Your task to perform on an android device: Open internet settings Image 0: 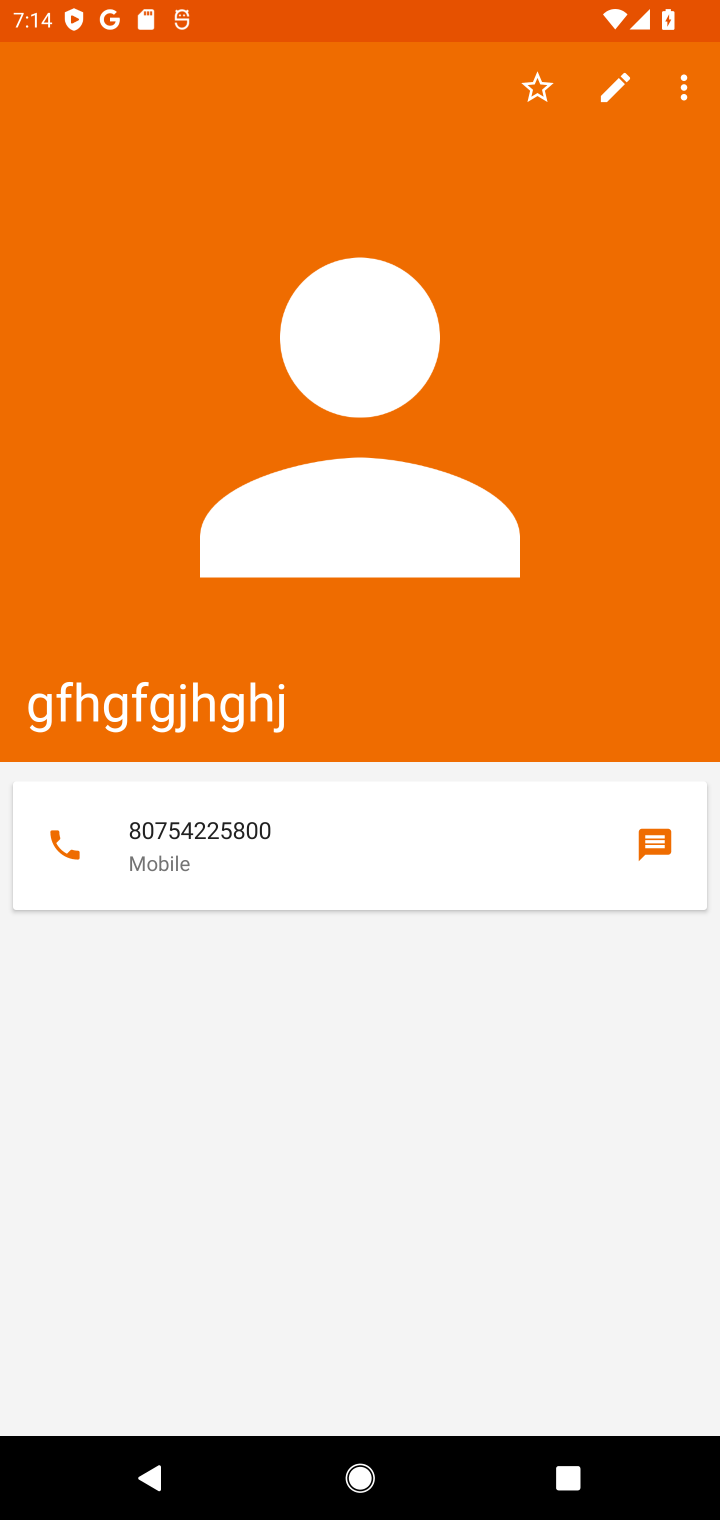
Step 0: press home button
Your task to perform on an android device: Open internet settings Image 1: 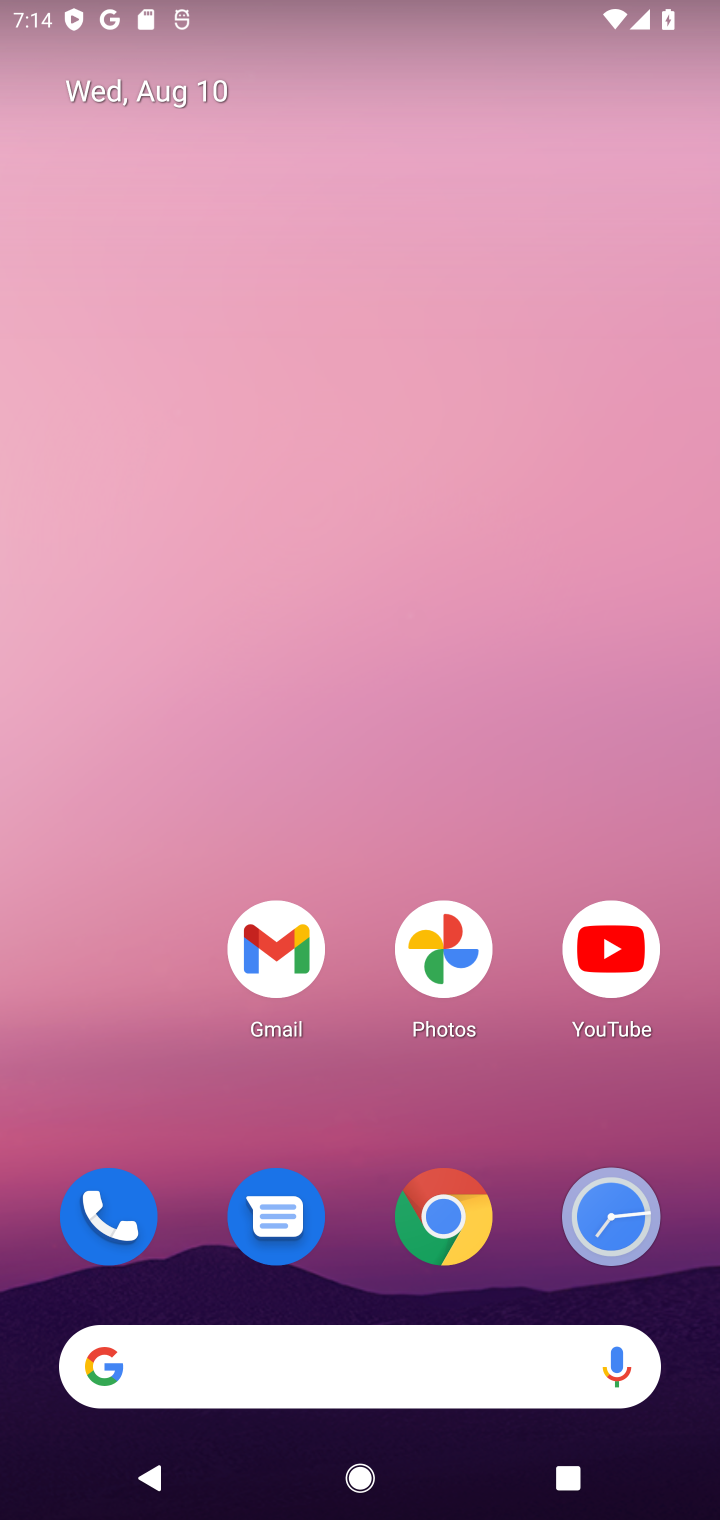
Step 1: drag from (195, 951) to (428, 240)
Your task to perform on an android device: Open internet settings Image 2: 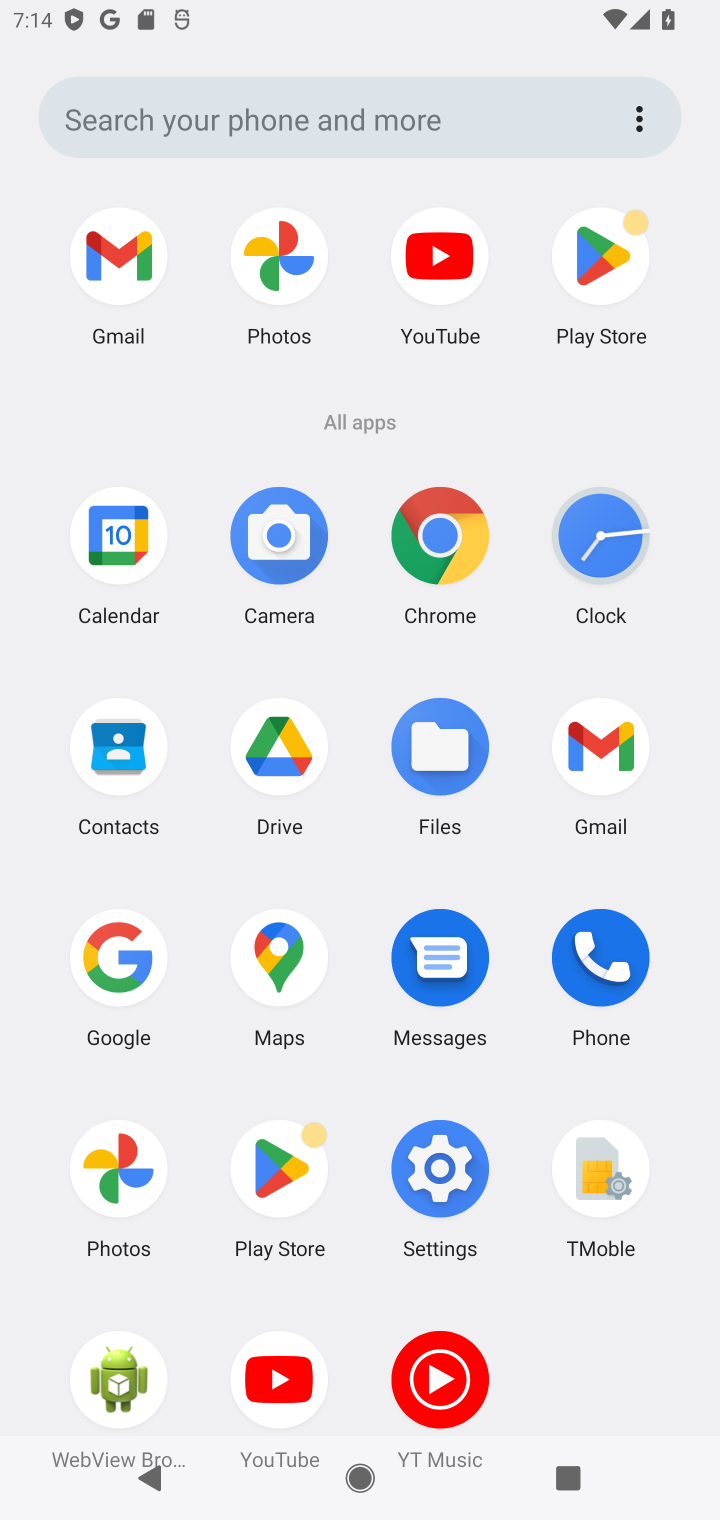
Step 2: click (422, 1162)
Your task to perform on an android device: Open internet settings Image 3: 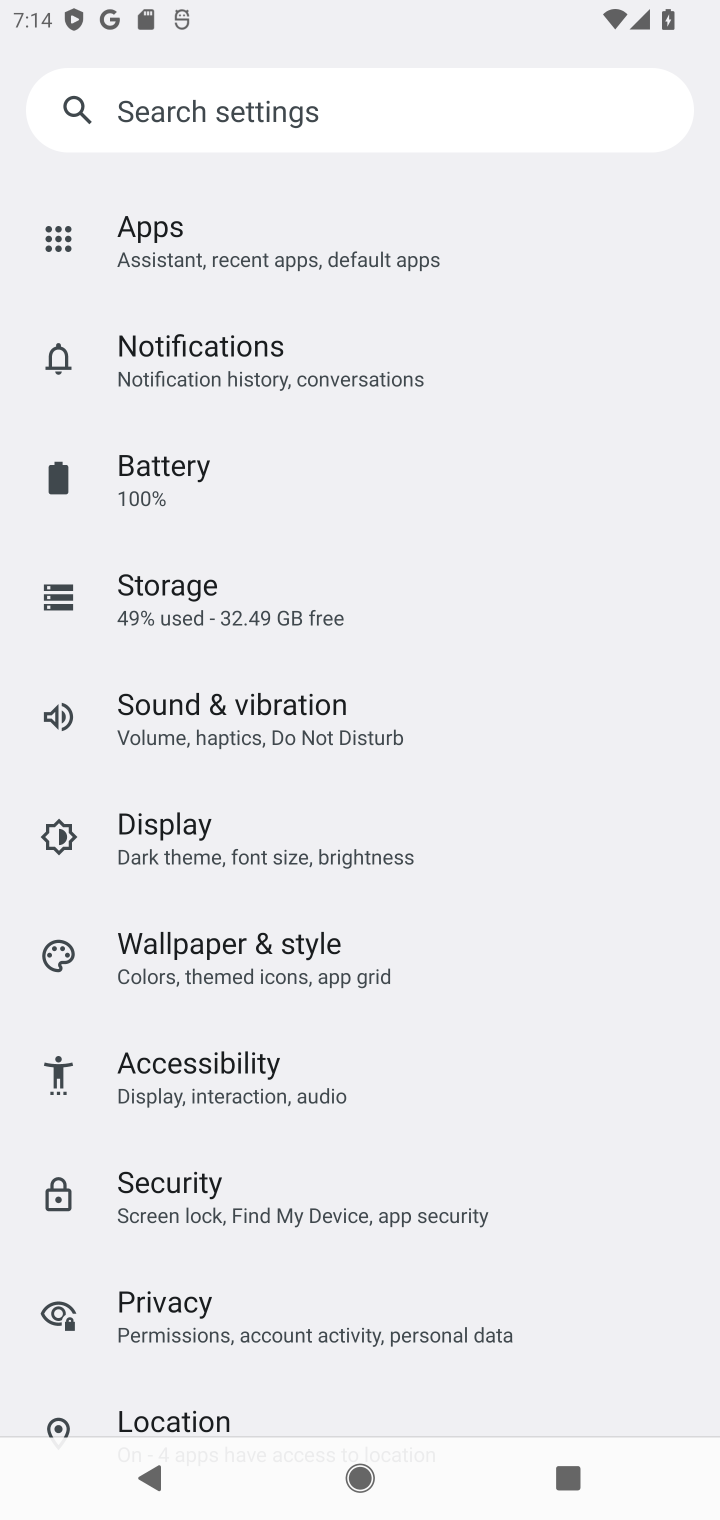
Step 3: drag from (252, 395) to (219, 1056)
Your task to perform on an android device: Open internet settings Image 4: 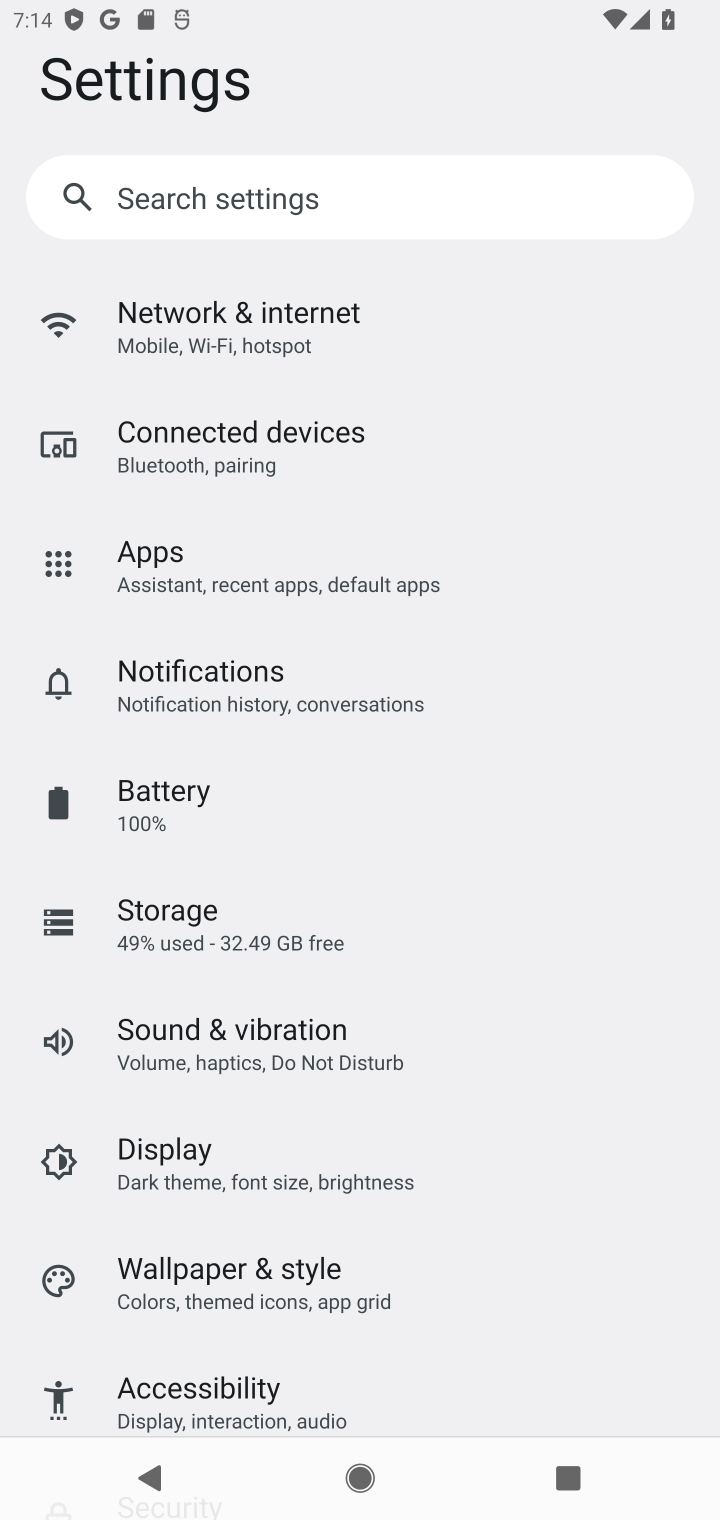
Step 4: click (280, 295)
Your task to perform on an android device: Open internet settings Image 5: 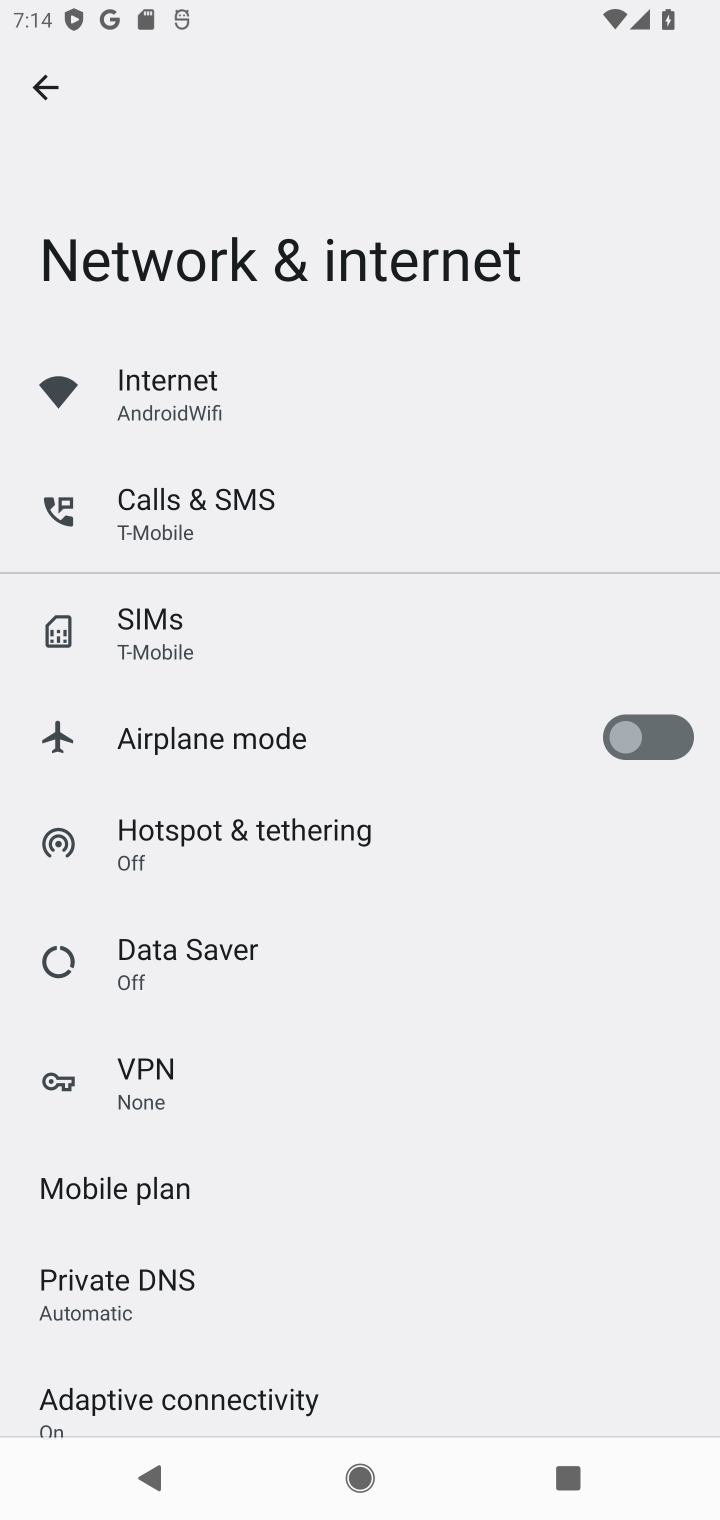
Step 5: click (97, 377)
Your task to perform on an android device: Open internet settings Image 6: 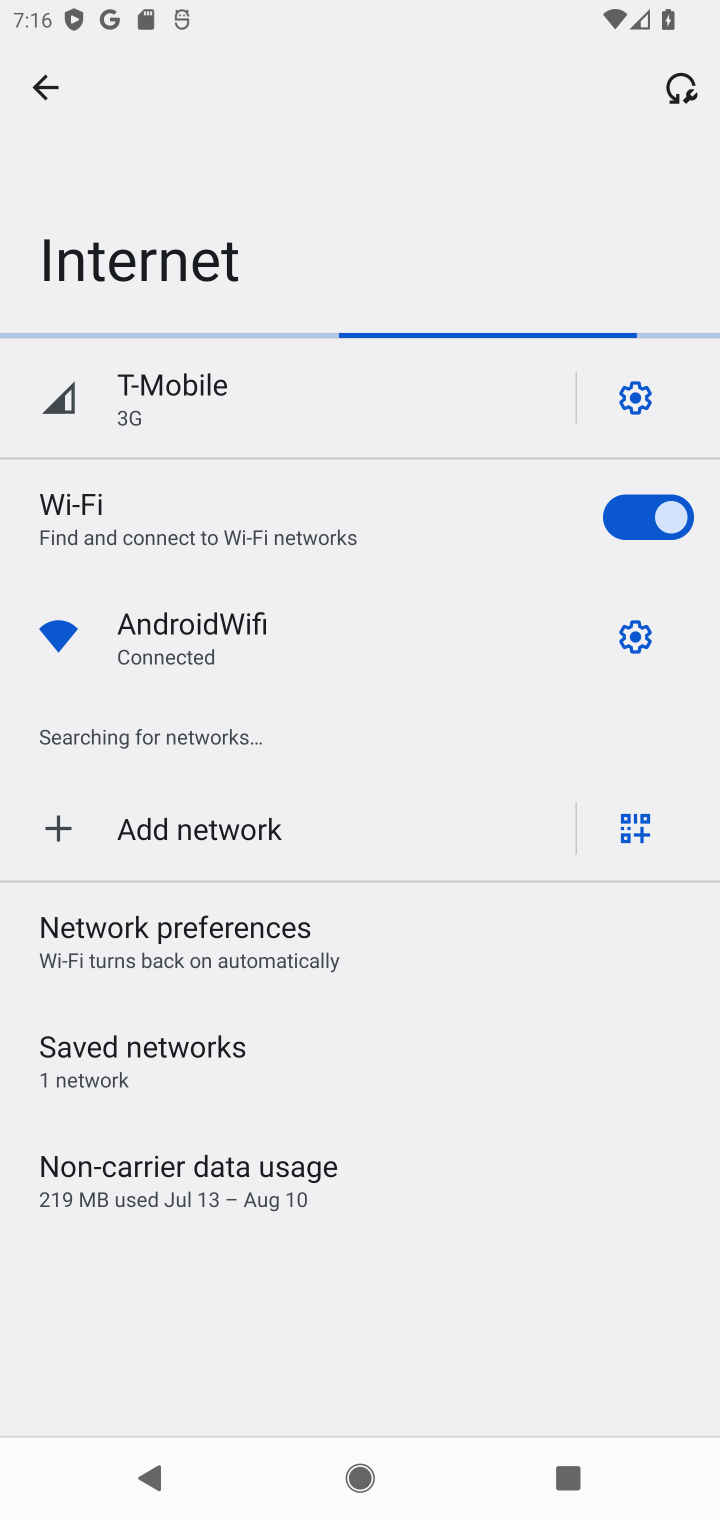
Step 6: task complete